Your task to perform on an android device: read, delete, or share a saved page in the chrome app Image 0: 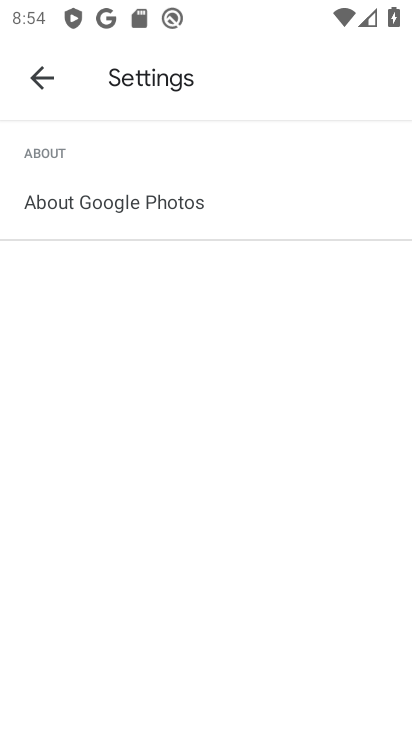
Step 0: press home button
Your task to perform on an android device: read, delete, or share a saved page in the chrome app Image 1: 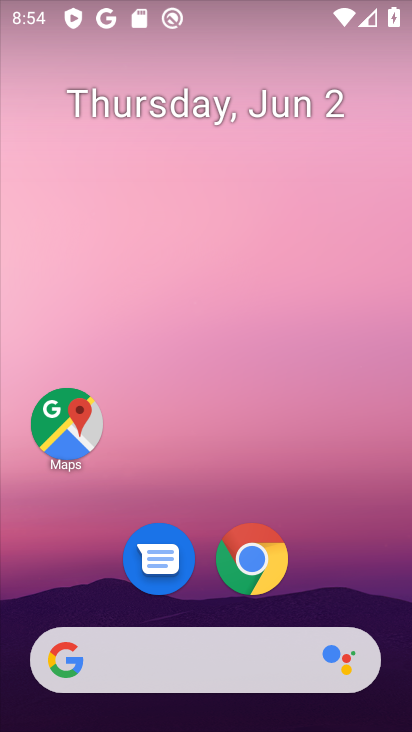
Step 1: click (287, 553)
Your task to perform on an android device: read, delete, or share a saved page in the chrome app Image 2: 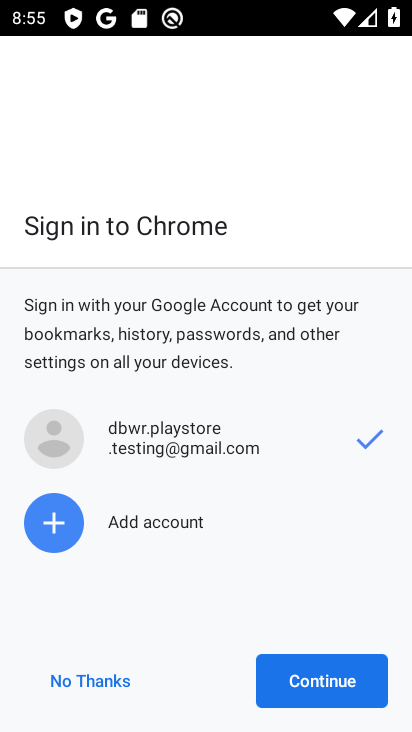
Step 2: click (299, 702)
Your task to perform on an android device: read, delete, or share a saved page in the chrome app Image 3: 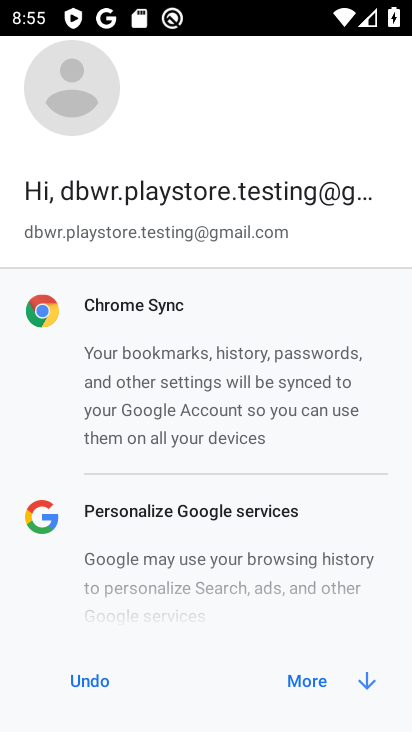
Step 3: click (306, 690)
Your task to perform on an android device: read, delete, or share a saved page in the chrome app Image 4: 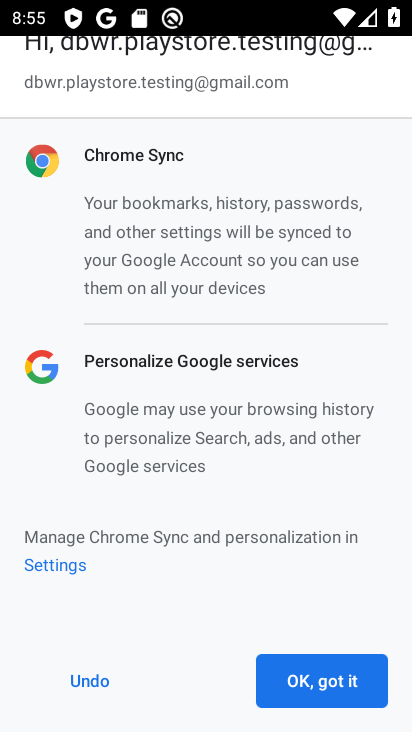
Step 4: click (330, 691)
Your task to perform on an android device: read, delete, or share a saved page in the chrome app Image 5: 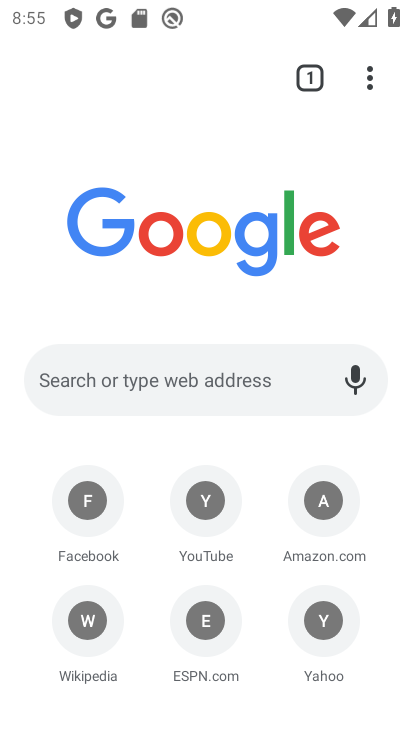
Step 5: click (384, 89)
Your task to perform on an android device: read, delete, or share a saved page in the chrome app Image 6: 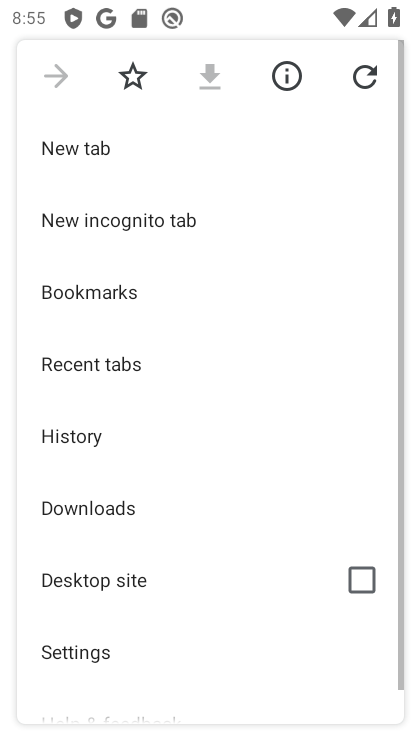
Step 6: click (281, 291)
Your task to perform on an android device: read, delete, or share a saved page in the chrome app Image 7: 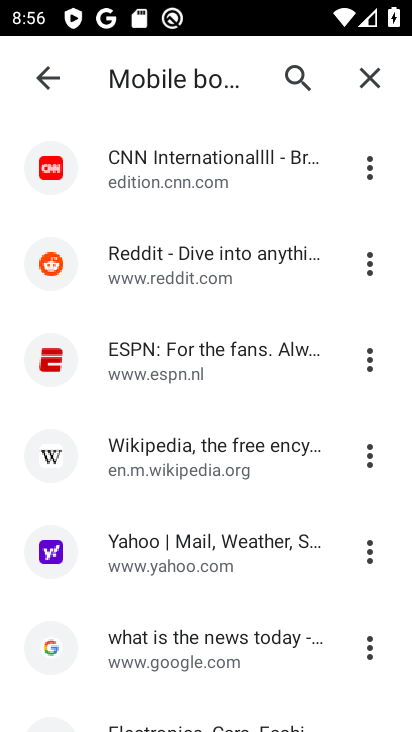
Step 7: click (379, 162)
Your task to perform on an android device: read, delete, or share a saved page in the chrome app Image 8: 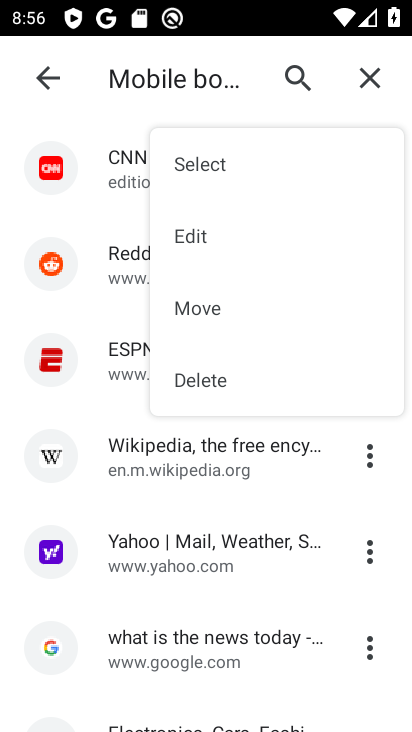
Step 8: click (236, 391)
Your task to perform on an android device: read, delete, or share a saved page in the chrome app Image 9: 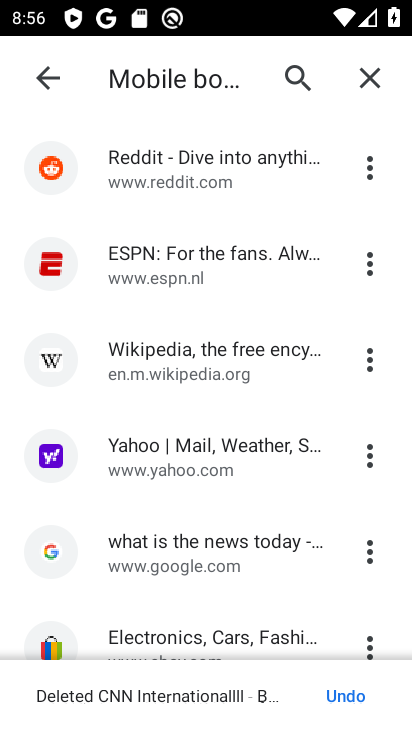
Step 9: task complete